Your task to perform on an android device: Go to CNN.com Image 0: 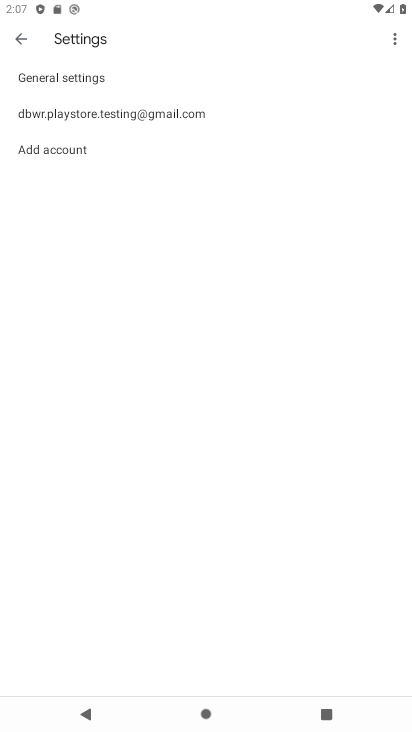
Step 0: press home button
Your task to perform on an android device: Go to CNN.com Image 1: 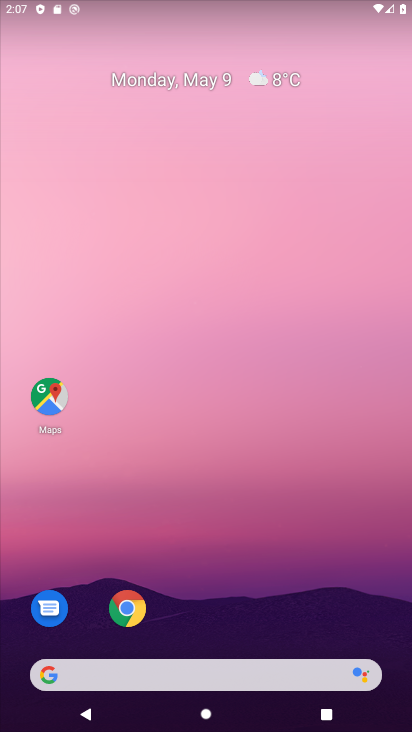
Step 1: click (144, 614)
Your task to perform on an android device: Go to CNN.com Image 2: 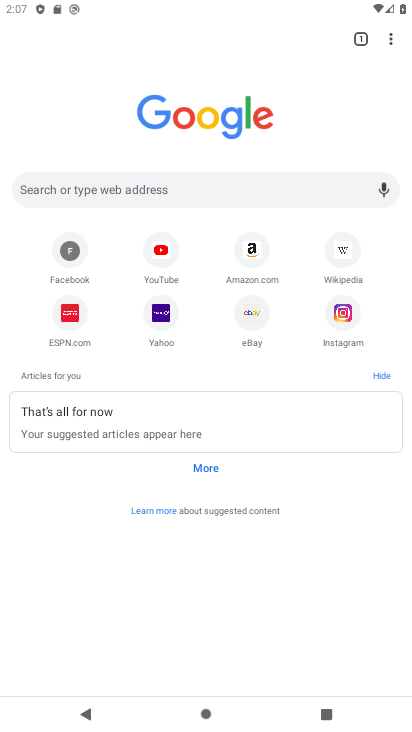
Step 2: click (196, 192)
Your task to perform on an android device: Go to CNN.com Image 3: 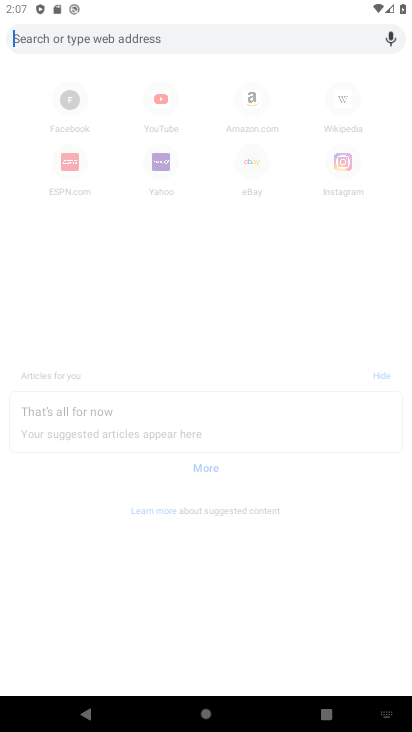
Step 3: type "CNN.com"
Your task to perform on an android device: Go to CNN.com Image 4: 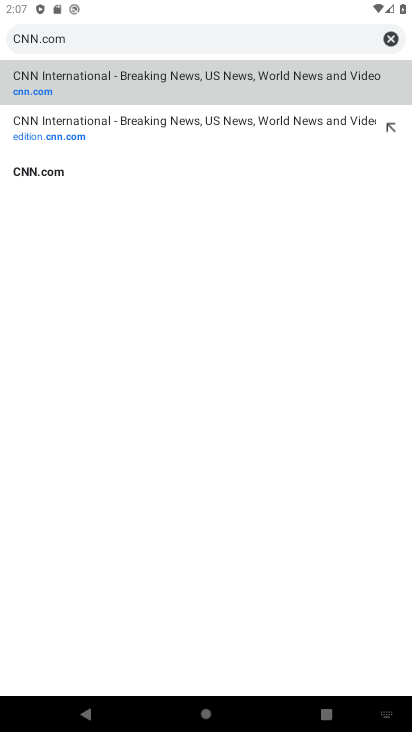
Step 4: click (117, 178)
Your task to perform on an android device: Go to CNN.com Image 5: 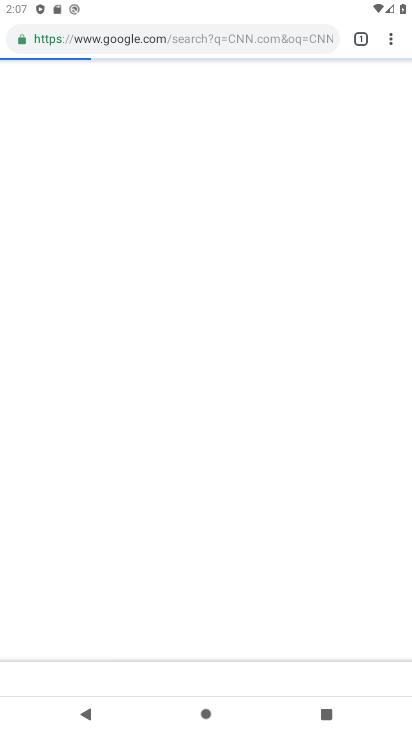
Step 5: click (117, 178)
Your task to perform on an android device: Go to CNN.com Image 6: 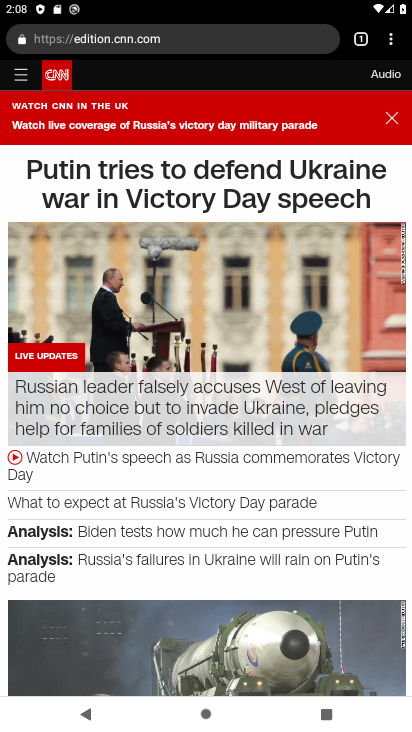
Step 6: task complete